Your task to perform on an android device: remove spam from my inbox in the gmail app Image 0: 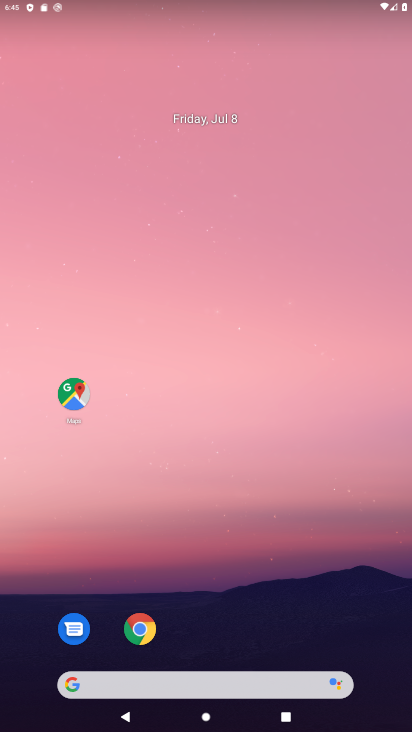
Step 0: drag from (377, 622) to (198, 184)
Your task to perform on an android device: remove spam from my inbox in the gmail app Image 1: 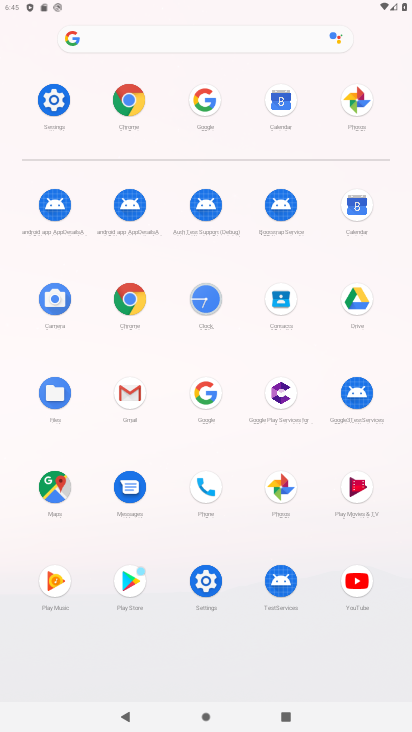
Step 1: click (128, 392)
Your task to perform on an android device: remove spam from my inbox in the gmail app Image 2: 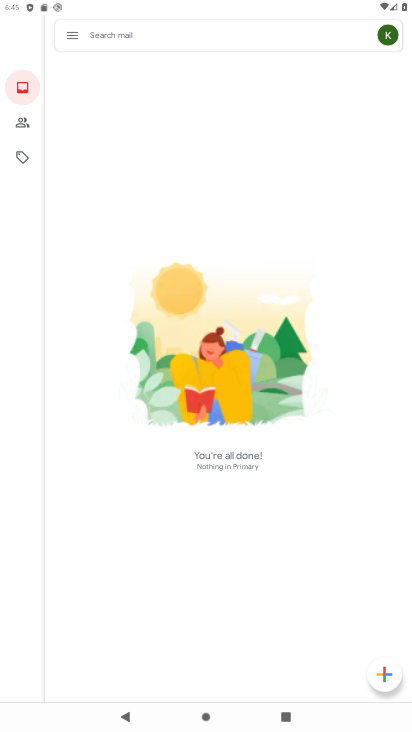
Step 2: task complete